Your task to perform on an android device: turn off priority inbox in the gmail app Image 0: 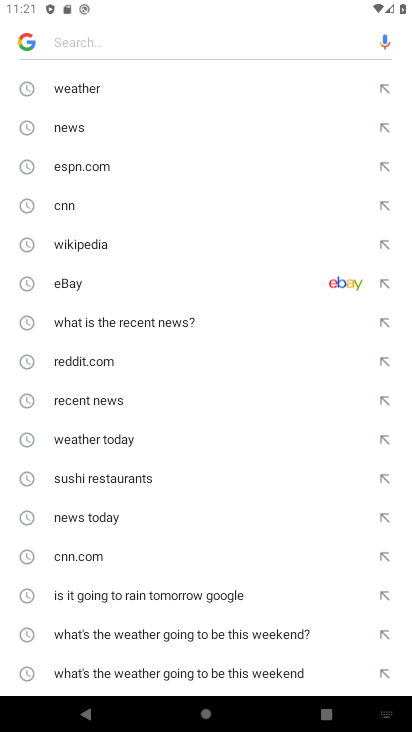
Step 0: press home button
Your task to perform on an android device: turn off priority inbox in the gmail app Image 1: 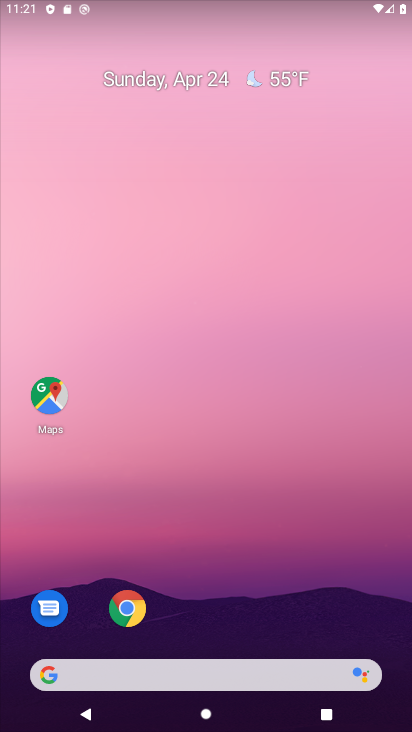
Step 1: drag from (224, 541) to (367, 65)
Your task to perform on an android device: turn off priority inbox in the gmail app Image 2: 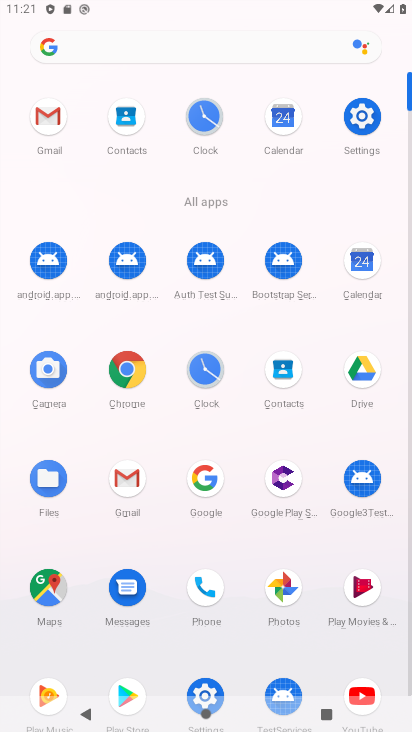
Step 2: click (46, 106)
Your task to perform on an android device: turn off priority inbox in the gmail app Image 3: 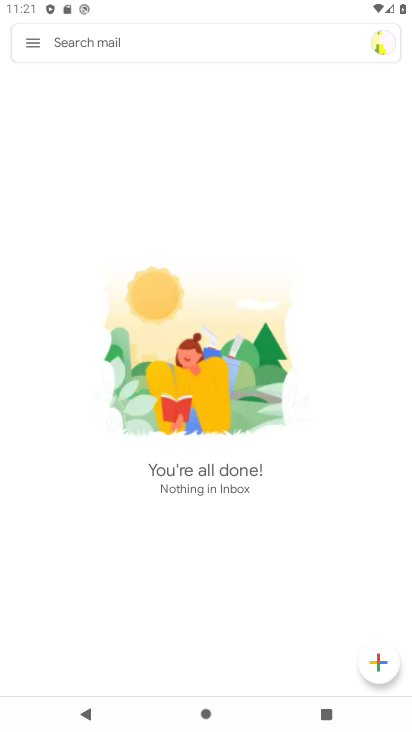
Step 3: click (46, 106)
Your task to perform on an android device: turn off priority inbox in the gmail app Image 4: 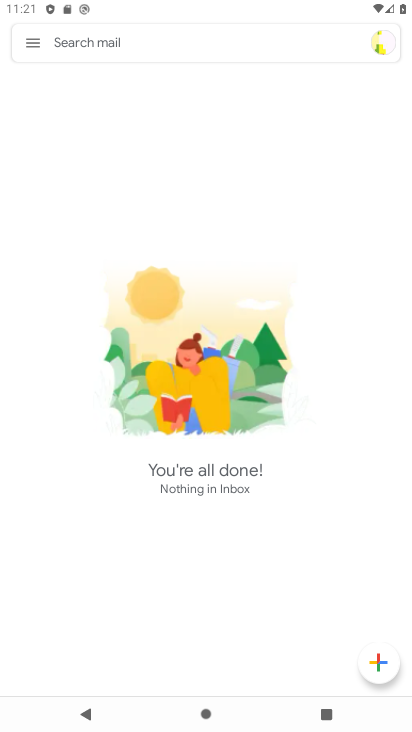
Step 4: click (35, 110)
Your task to perform on an android device: turn off priority inbox in the gmail app Image 5: 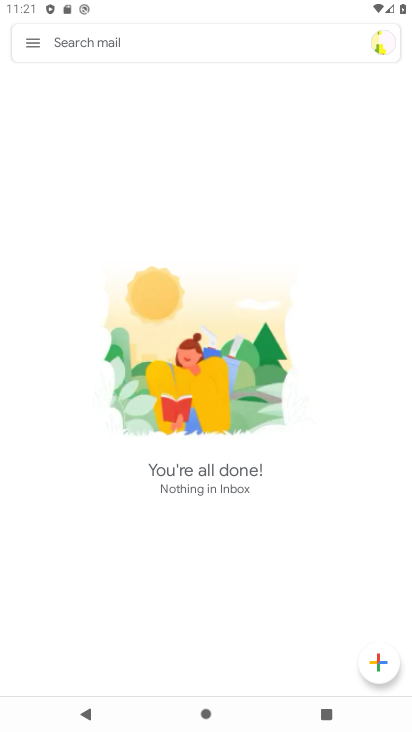
Step 5: click (30, 42)
Your task to perform on an android device: turn off priority inbox in the gmail app Image 6: 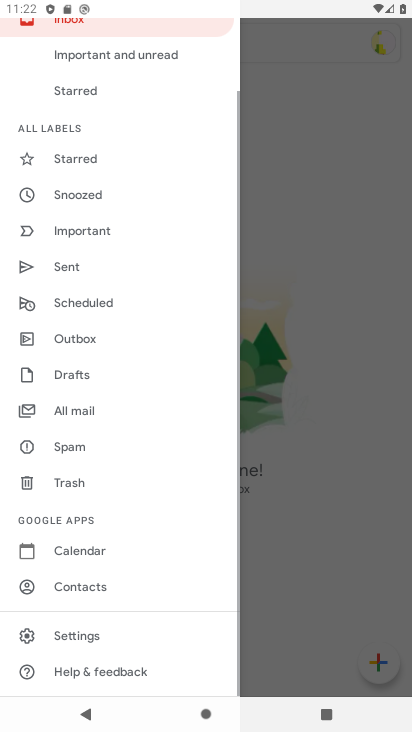
Step 6: click (73, 647)
Your task to perform on an android device: turn off priority inbox in the gmail app Image 7: 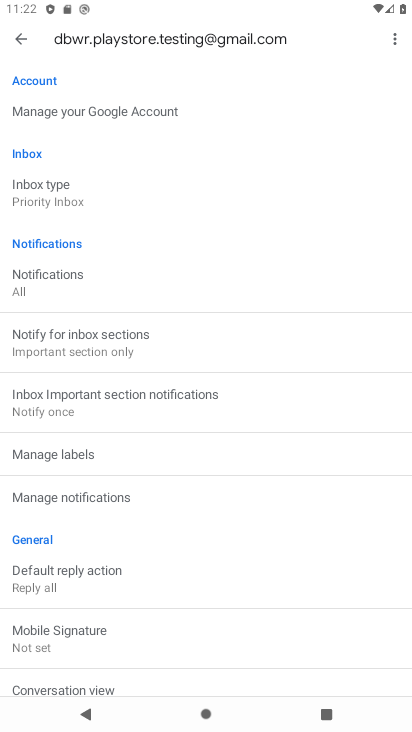
Step 7: click (40, 198)
Your task to perform on an android device: turn off priority inbox in the gmail app Image 8: 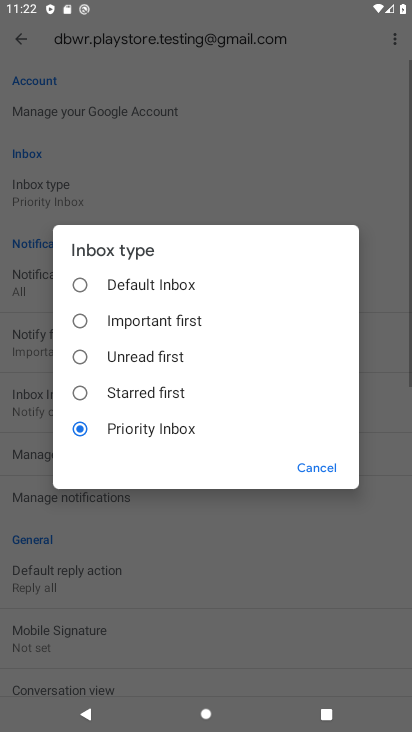
Step 8: click (94, 275)
Your task to perform on an android device: turn off priority inbox in the gmail app Image 9: 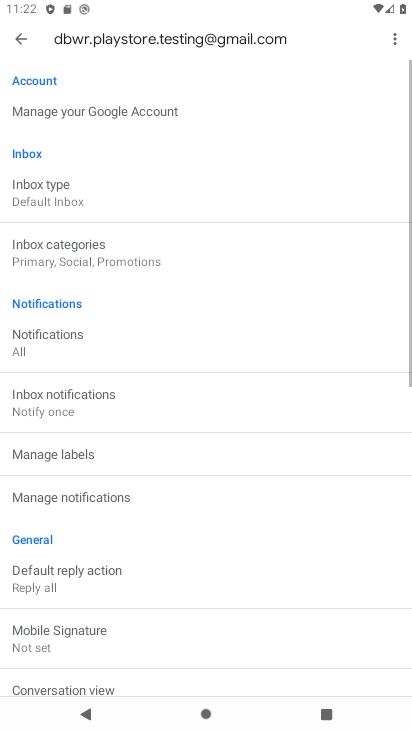
Step 9: task complete